Your task to perform on an android device: add a contact in the contacts app Image 0: 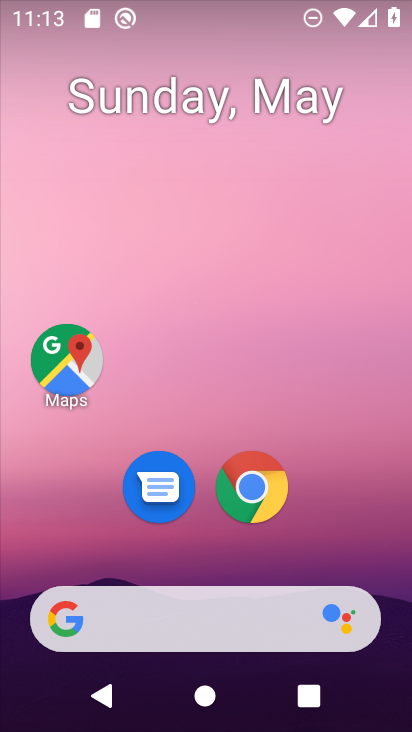
Step 0: drag from (356, 531) to (273, 46)
Your task to perform on an android device: add a contact in the contacts app Image 1: 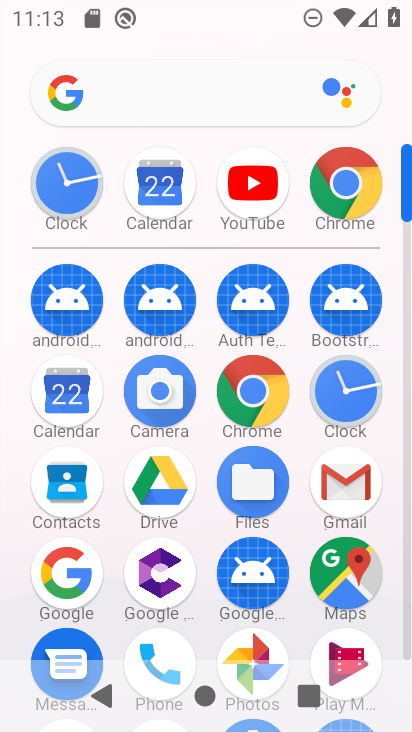
Step 1: click (75, 493)
Your task to perform on an android device: add a contact in the contacts app Image 2: 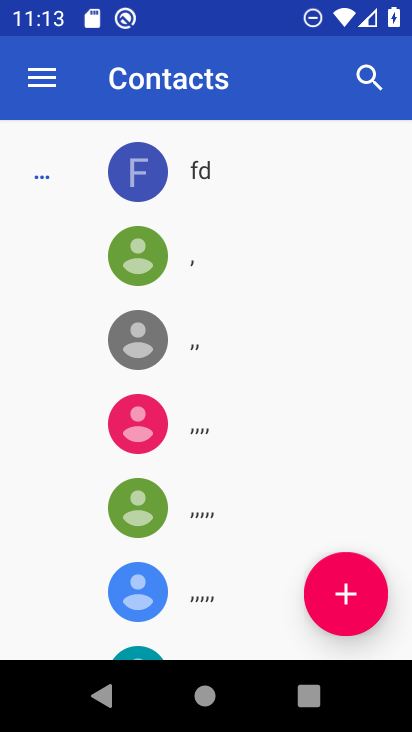
Step 2: click (365, 612)
Your task to perform on an android device: add a contact in the contacts app Image 3: 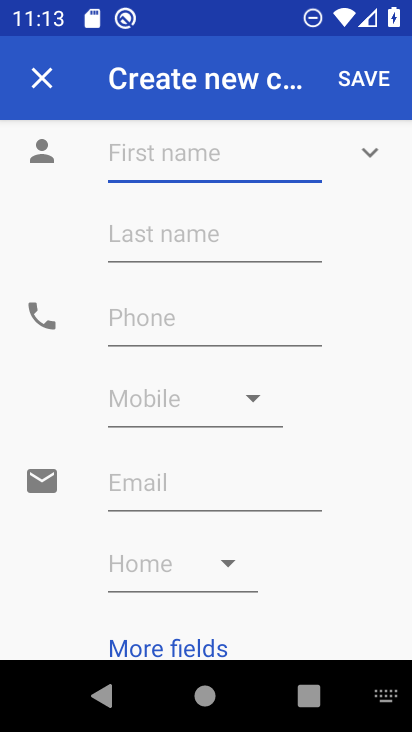
Step 3: type "kjfjbnbj"
Your task to perform on an android device: add a contact in the contacts app Image 4: 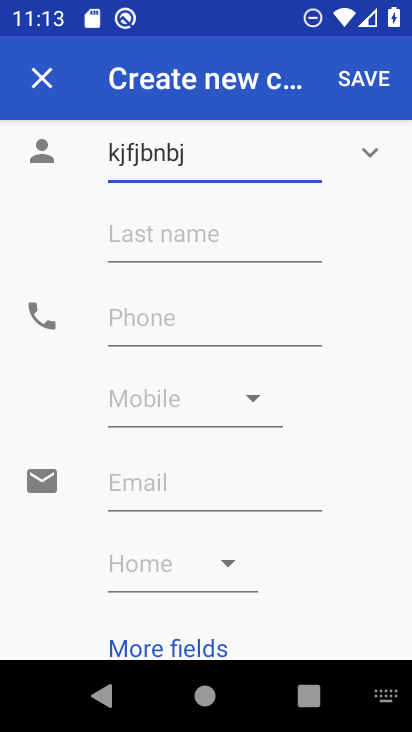
Step 4: click (166, 327)
Your task to perform on an android device: add a contact in the contacts app Image 5: 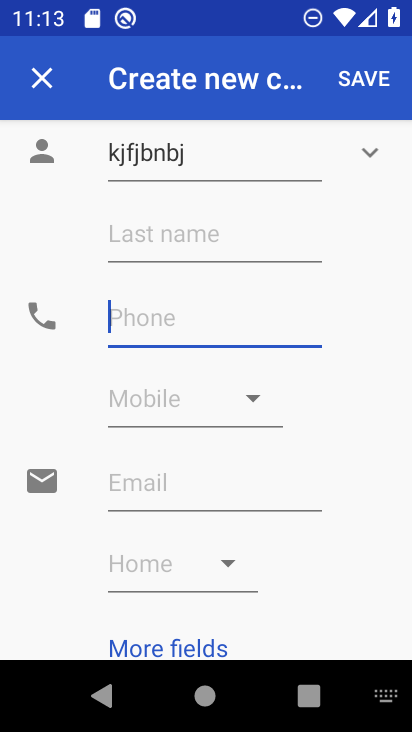
Step 5: type "445434"
Your task to perform on an android device: add a contact in the contacts app Image 6: 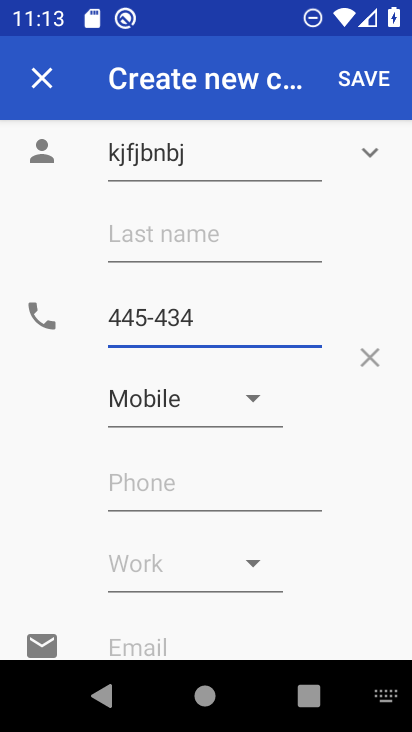
Step 6: click (374, 87)
Your task to perform on an android device: add a contact in the contacts app Image 7: 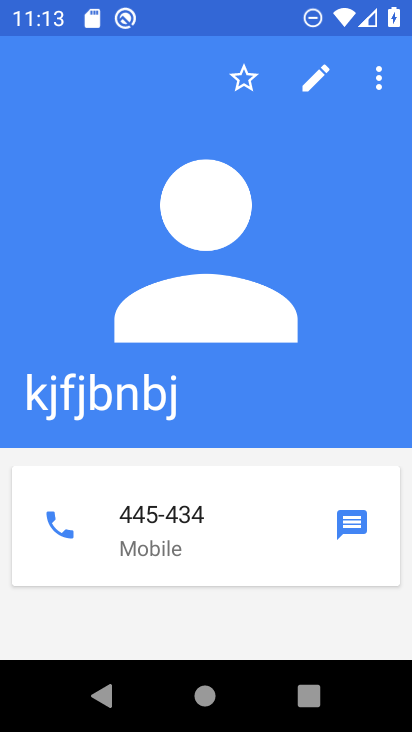
Step 7: task complete